Your task to perform on an android device: Open notification settings Image 0: 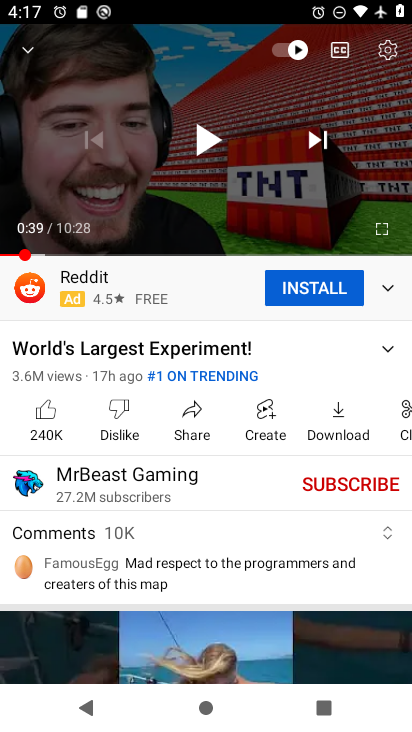
Step 0: press home button
Your task to perform on an android device: Open notification settings Image 1: 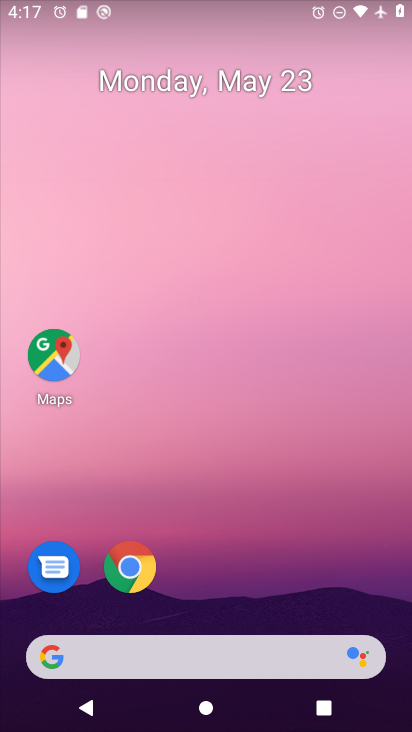
Step 1: drag from (385, 621) to (330, 79)
Your task to perform on an android device: Open notification settings Image 2: 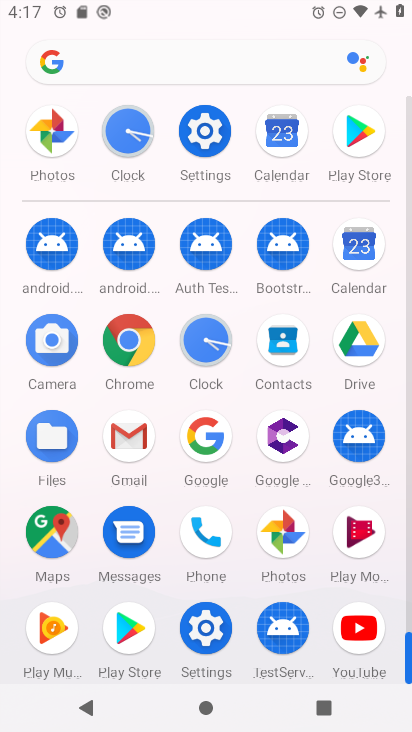
Step 2: click (203, 628)
Your task to perform on an android device: Open notification settings Image 3: 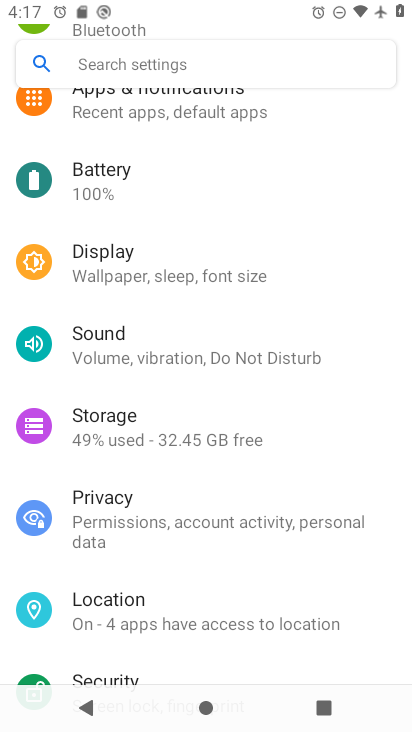
Step 3: drag from (312, 128) to (286, 410)
Your task to perform on an android device: Open notification settings Image 4: 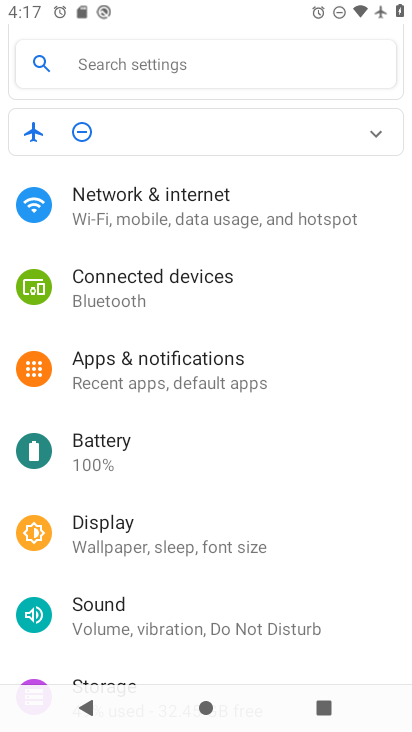
Step 4: click (147, 372)
Your task to perform on an android device: Open notification settings Image 5: 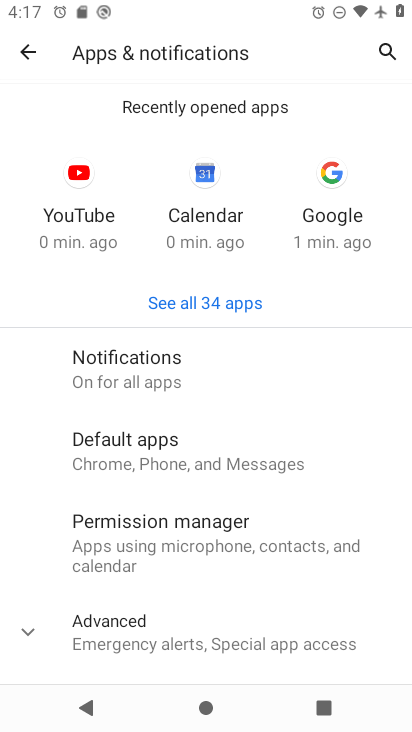
Step 5: click (114, 366)
Your task to perform on an android device: Open notification settings Image 6: 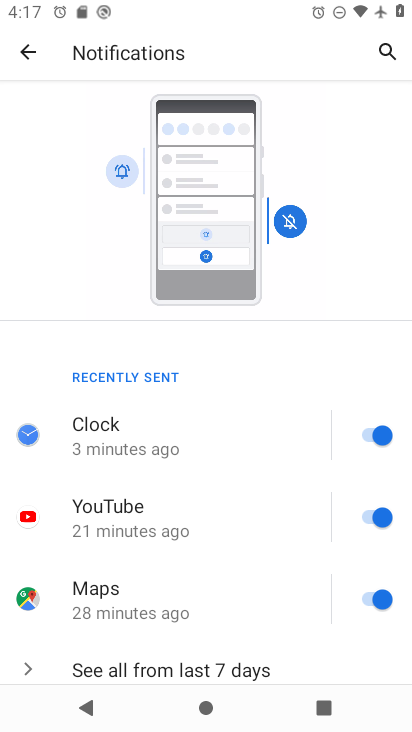
Step 6: drag from (321, 647) to (339, 156)
Your task to perform on an android device: Open notification settings Image 7: 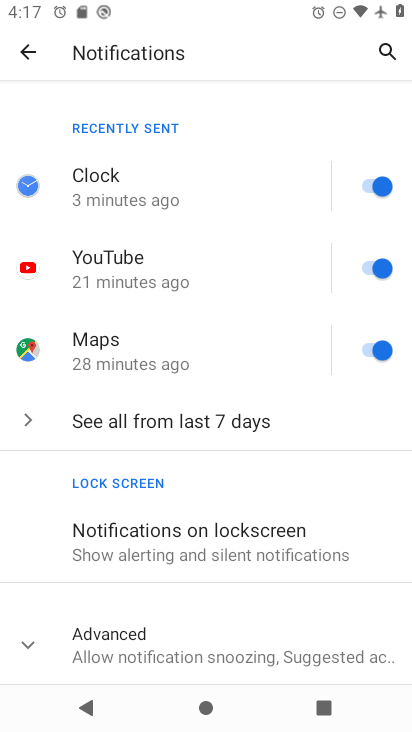
Step 7: click (16, 643)
Your task to perform on an android device: Open notification settings Image 8: 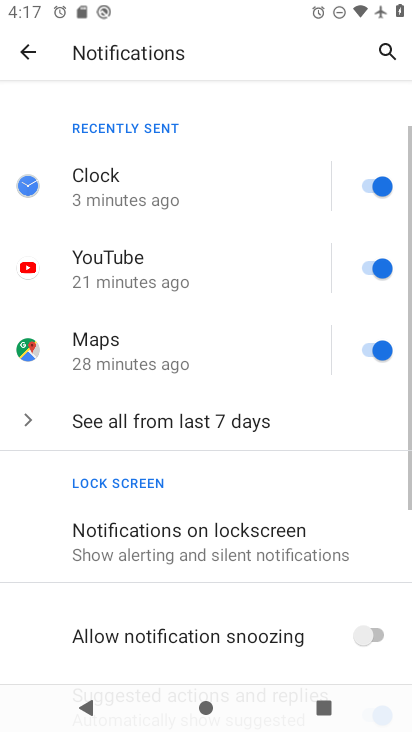
Step 8: task complete